Your task to perform on an android device: Open Google Image 0: 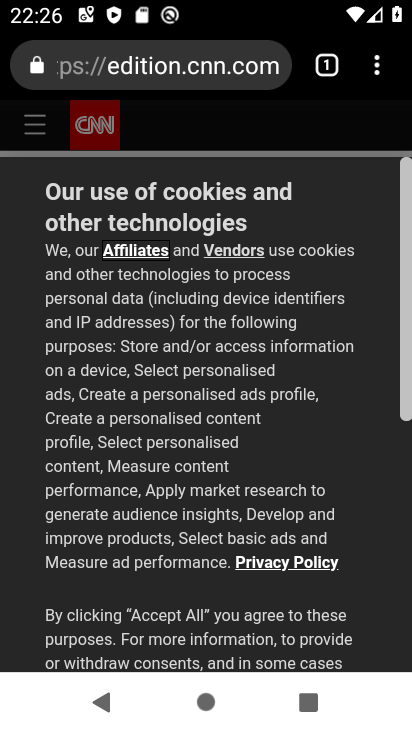
Step 0: press home button
Your task to perform on an android device: Open Google Image 1: 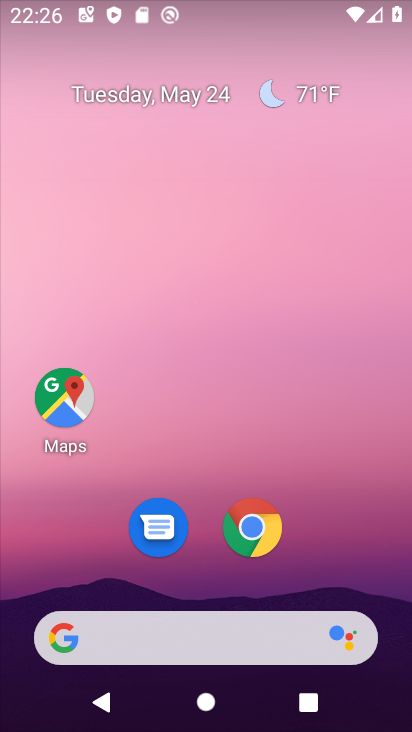
Step 1: drag from (197, 571) to (275, 39)
Your task to perform on an android device: Open Google Image 2: 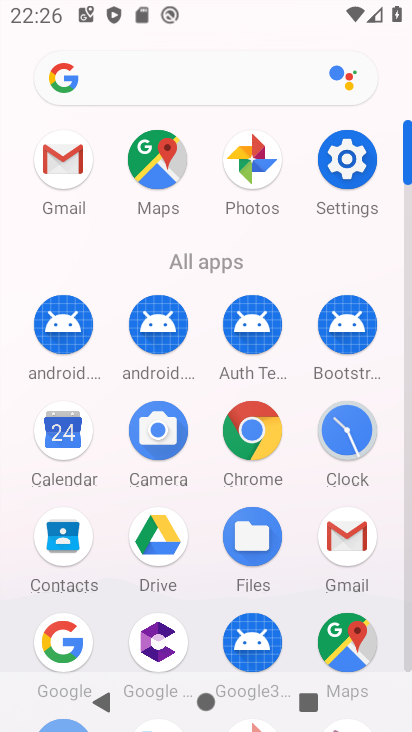
Step 2: click (58, 653)
Your task to perform on an android device: Open Google Image 3: 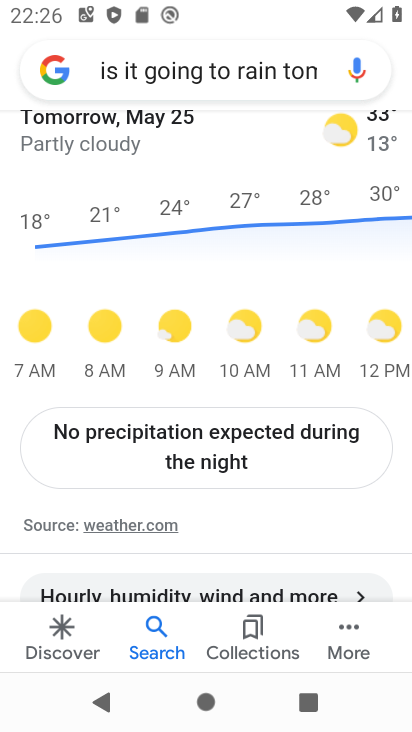
Step 3: task complete